Your task to perform on an android device: make emails show in primary in the gmail app Image 0: 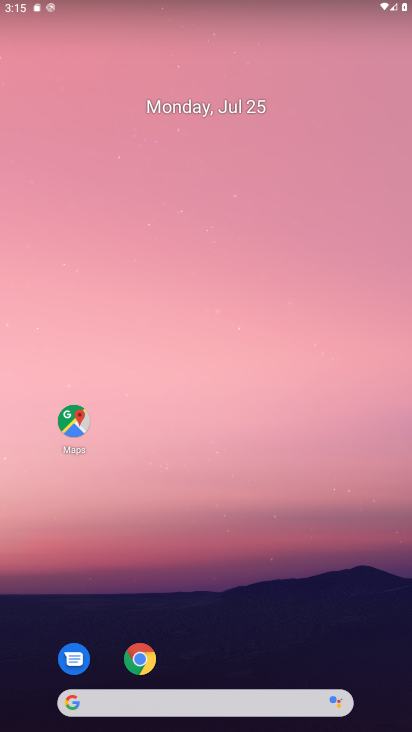
Step 0: drag from (182, 556) to (245, 9)
Your task to perform on an android device: make emails show in primary in the gmail app Image 1: 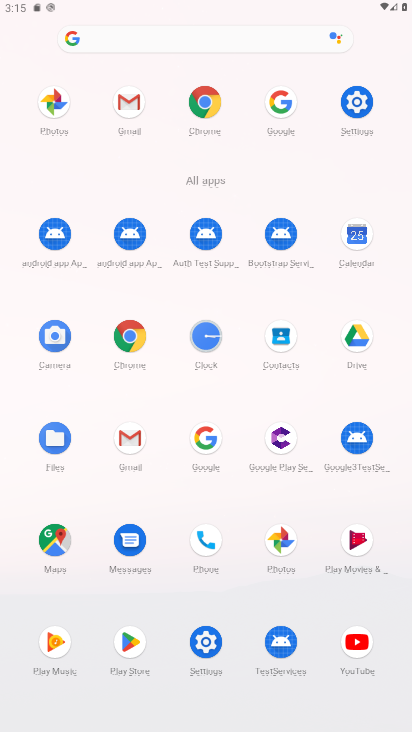
Step 1: click (128, 457)
Your task to perform on an android device: make emails show in primary in the gmail app Image 2: 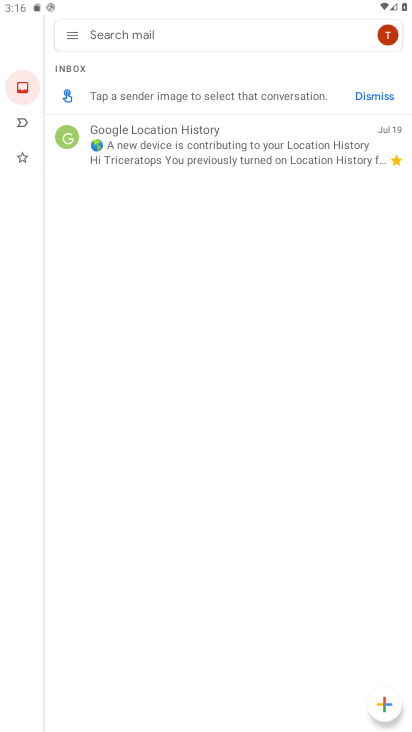
Step 2: click (205, 439)
Your task to perform on an android device: make emails show in primary in the gmail app Image 3: 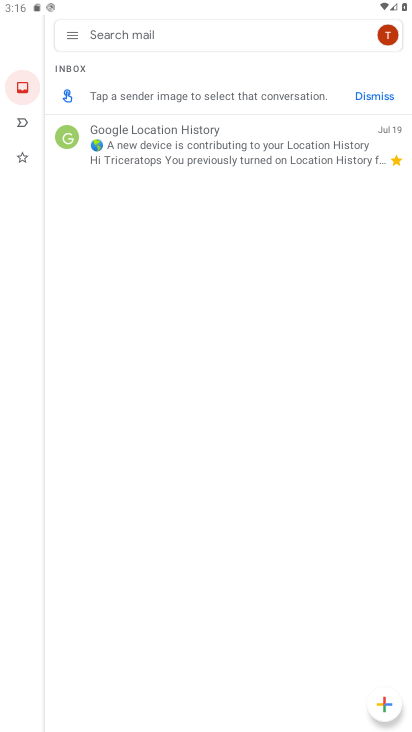
Step 3: click (76, 39)
Your task to perform on an android device: make emails show in primary in the gmail app Image 4: 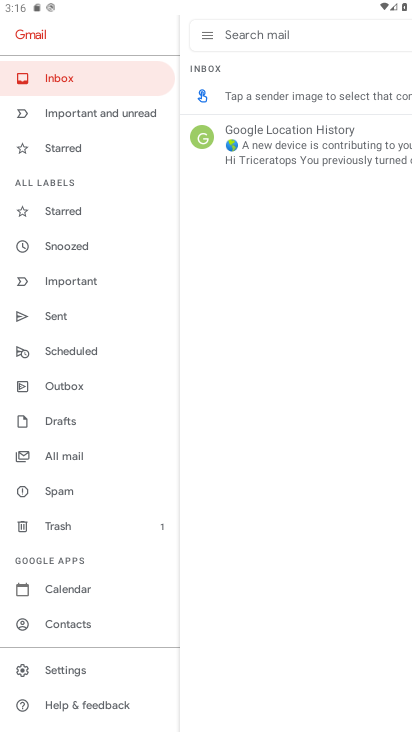
Step 4: click (76, 39)
Your task to perform on an android device: make emails show in primary in the gmail app Image 5: 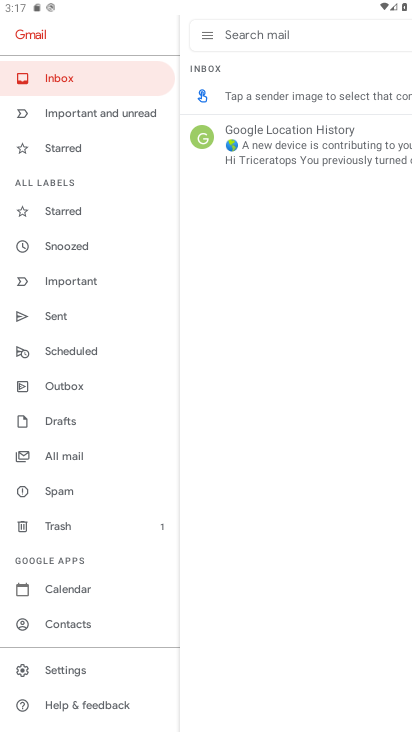
Step 5: click (61, 679)
Your task to perform on an android device: make emails show in primary in the gmail app Image 6: 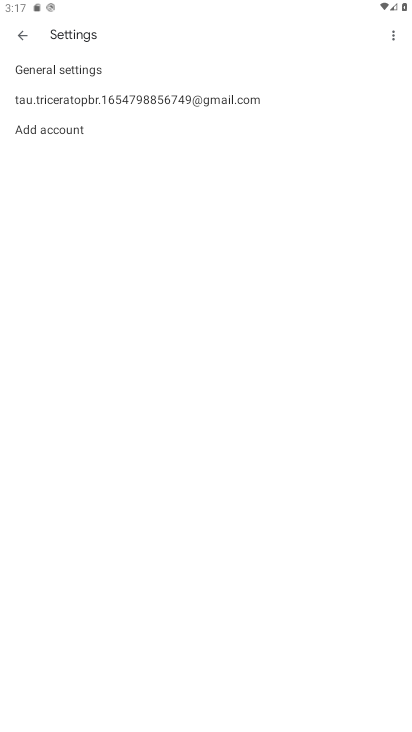
Step 6: click (61, 679)
Your task to perform on an android device: make emails show in primary in the gmail app Image 7: 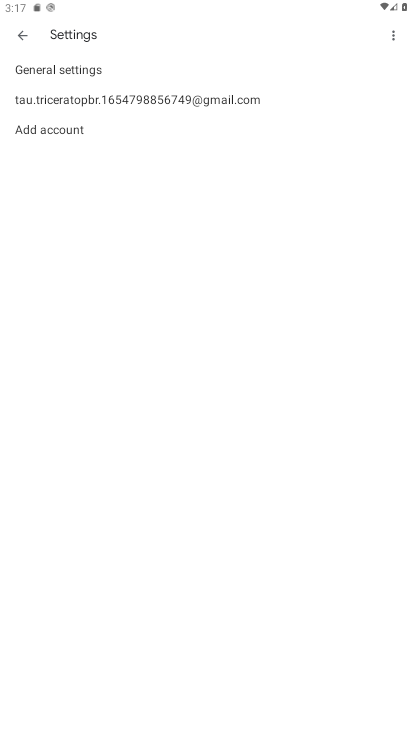
Step 7: click (12, 37)
Your task to perform on an android device: make emails show in primary in the gmail app Image 8: 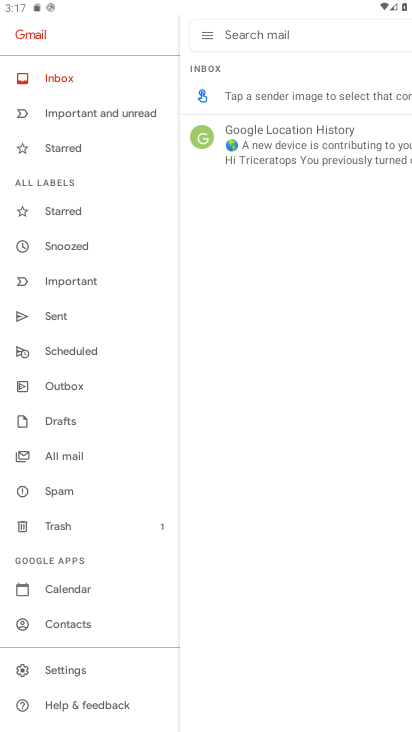
Step 8: click (351, 354)
Your task to perform on an android device: make emails show in primary in the gmail app Image 9: 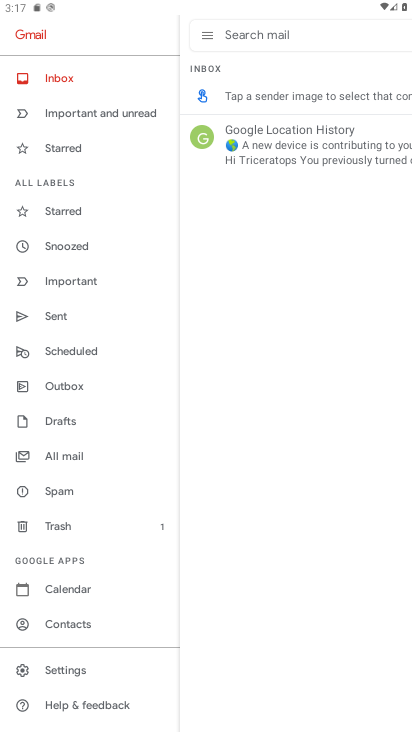
Step 9: click (202, 40)
Your task to perform on an android device: make emails show in primary in the gmail app Image 10: 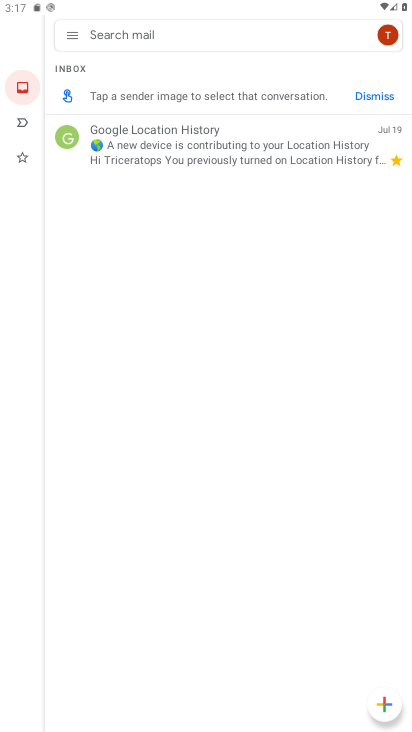
Step 10: click (202, 40)
Your task to perform on an android device: make emails show in primary in the gmail app Image 11: 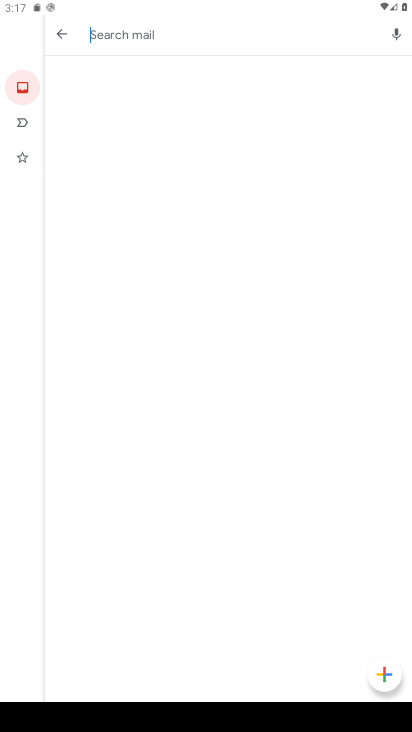
Step 11: click (63, 44)
Your task to perform on an android device: make emails show in primary in the gmail app Image 12: 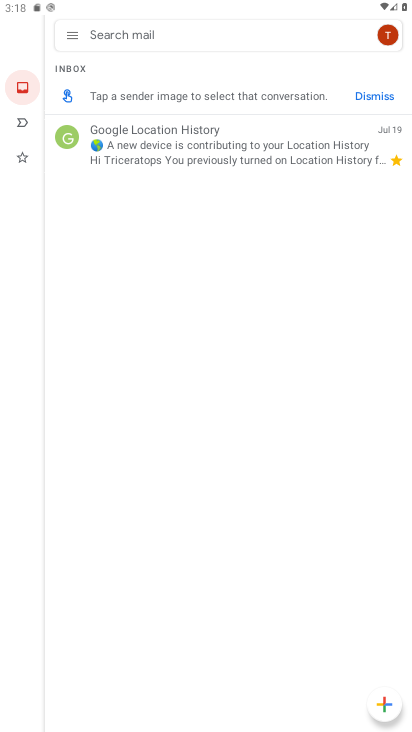
Step 12: task complete